Your task to perform on an android device: show emergency info Image 0: 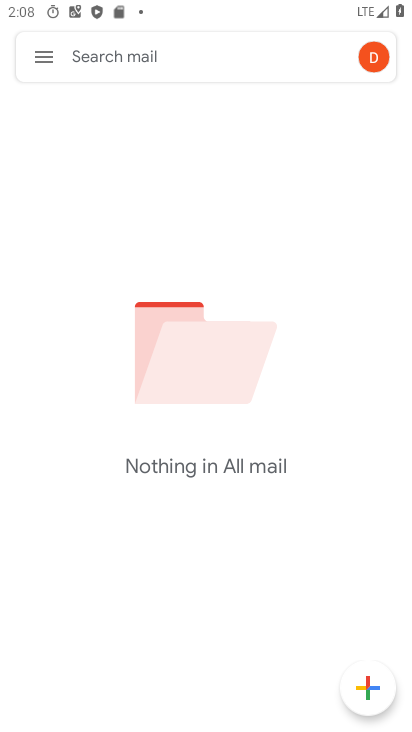
Step 0: press home button
Your task to perform on an android device: show emergency info Image 1: 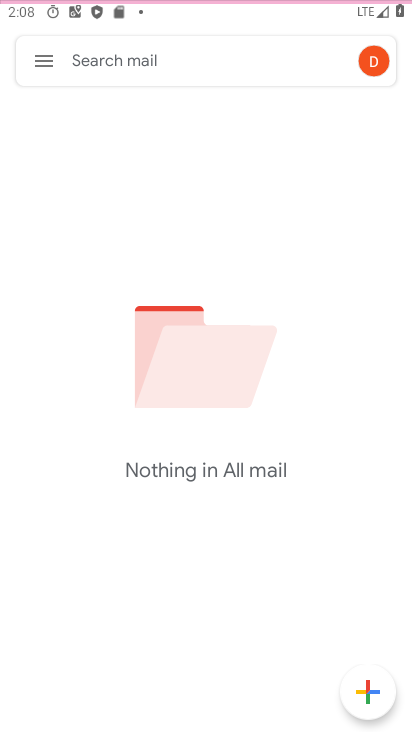
Step 1: drag from (190, 639) to (283, 148)
Your task to perform on an android device: show emergency info Image 2: 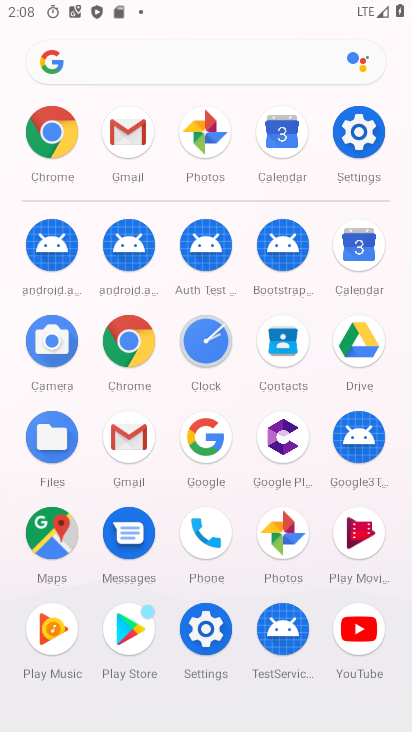
Step 2: click (341, 135)
Your task to perform on an android device: show emergency info Image 3: 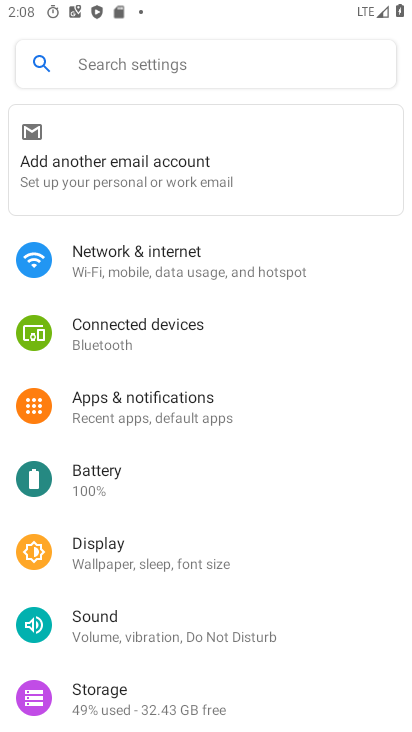
Step 3: drag from (103, 563) to (342, 15)
Your task to perform on an android device: show emergency info Image 4: 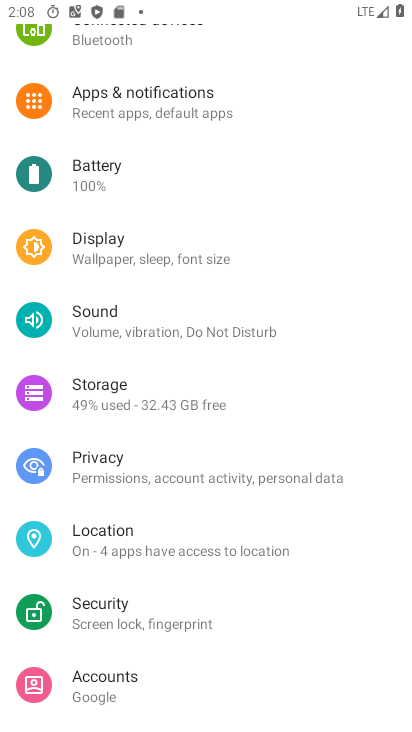
Step 4: drag from (139, 556) to (292, 0)
Your task to perform on an android device: show emergency info Image 5: 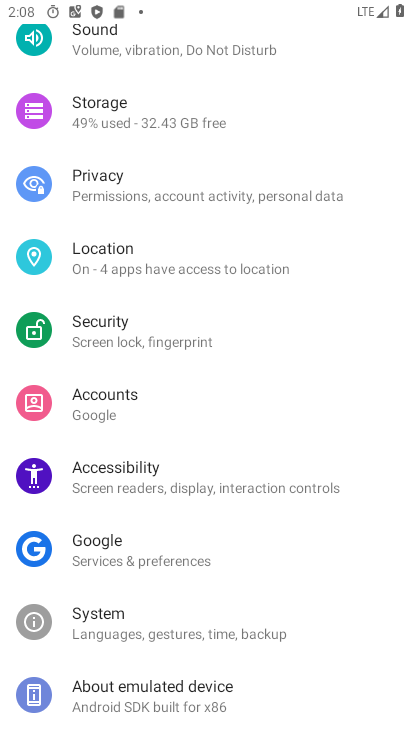
Step 5: click (162, 701)
Your task to perform on an android device: show emergency info Image 6: 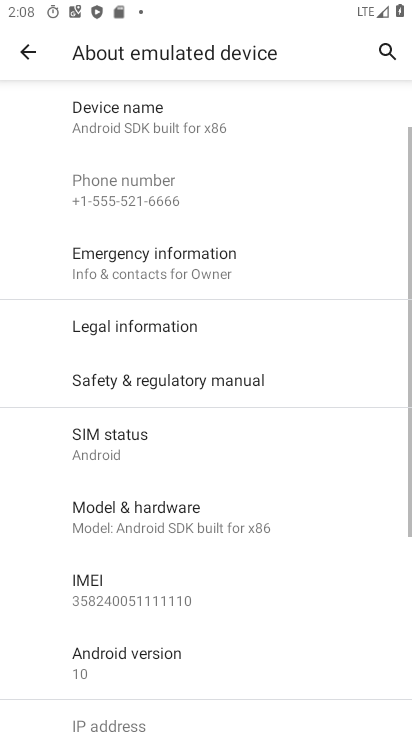
Step 6: click (196, 272)
Your task to perform on an android device: show emergency info Image 7: 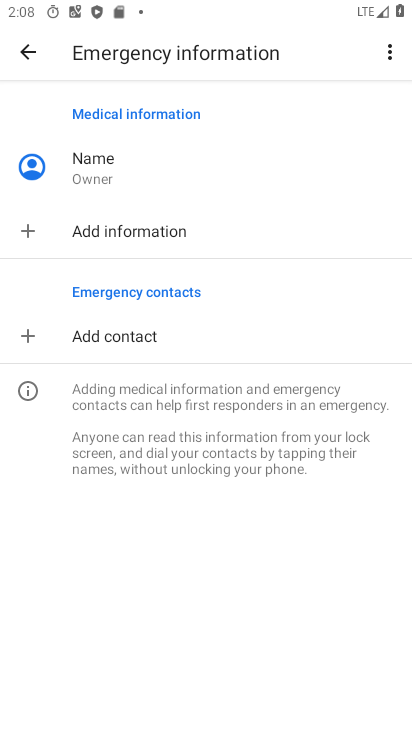
Step 7: task complete